Your task to perform on an android device: Look up the best rated headphones on Amazon. Image 0: 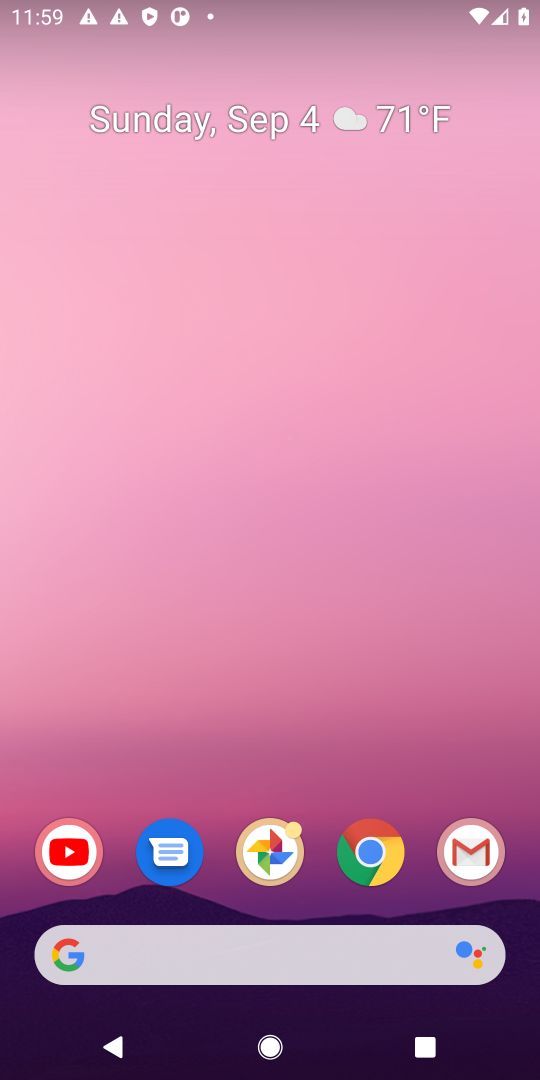
Step 0: click (375, 849)
Your task to perform on an android device: Look up the best rated headphones on Amazon. Image 1: 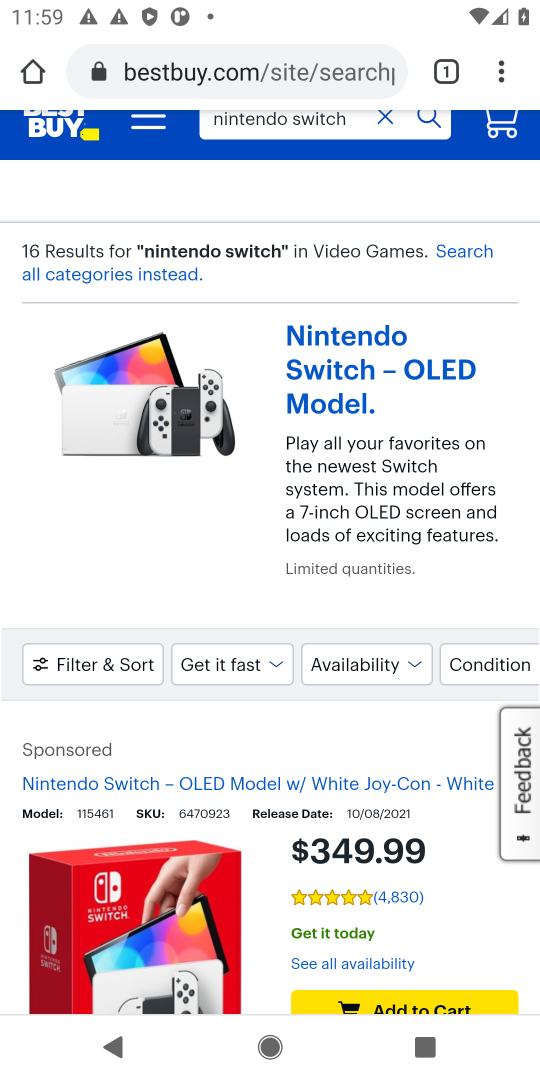
Step 1: click (270, 48)
Your task to perform on an android device: Look up the best rated headphones on Amazon. Image 2: 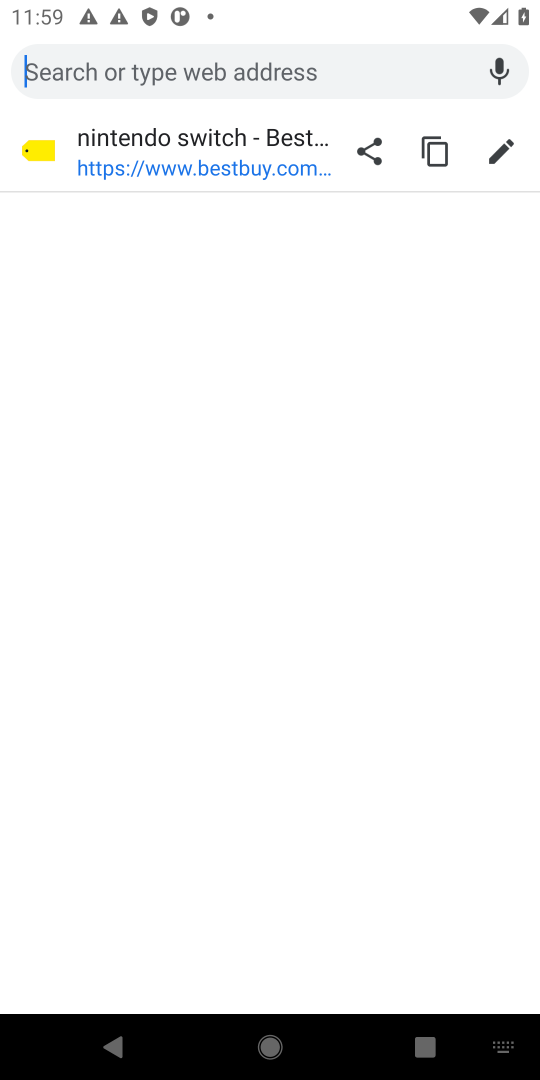
Step 2: type "Amazon"
Your task to perform on an android device: Look up the best rated headphones on Amazon. Image 3: 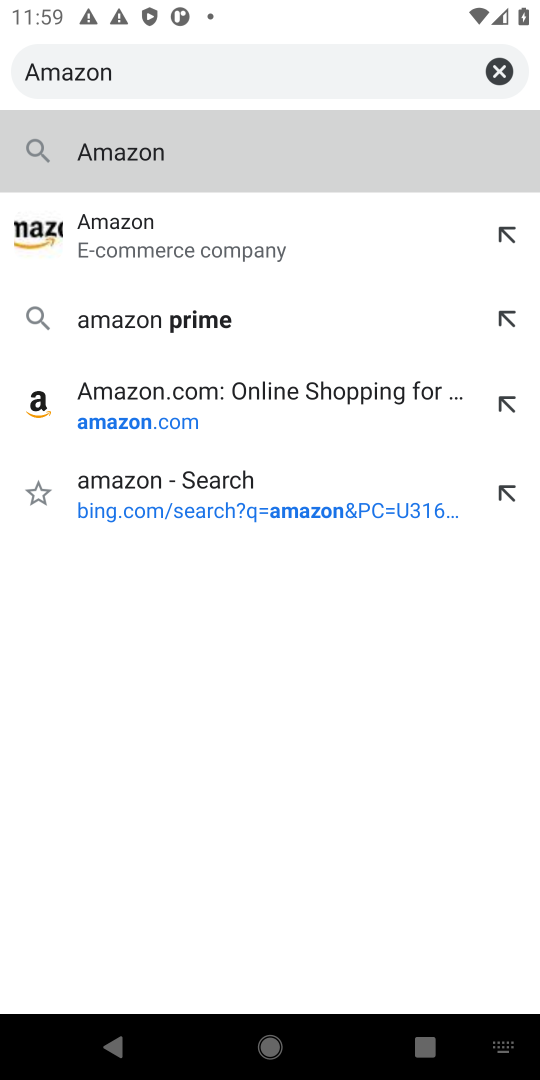
Step 3: click (147, 224)
Your task to perform on an android device: Look up the best rated headphones on Amazon. Image 4: 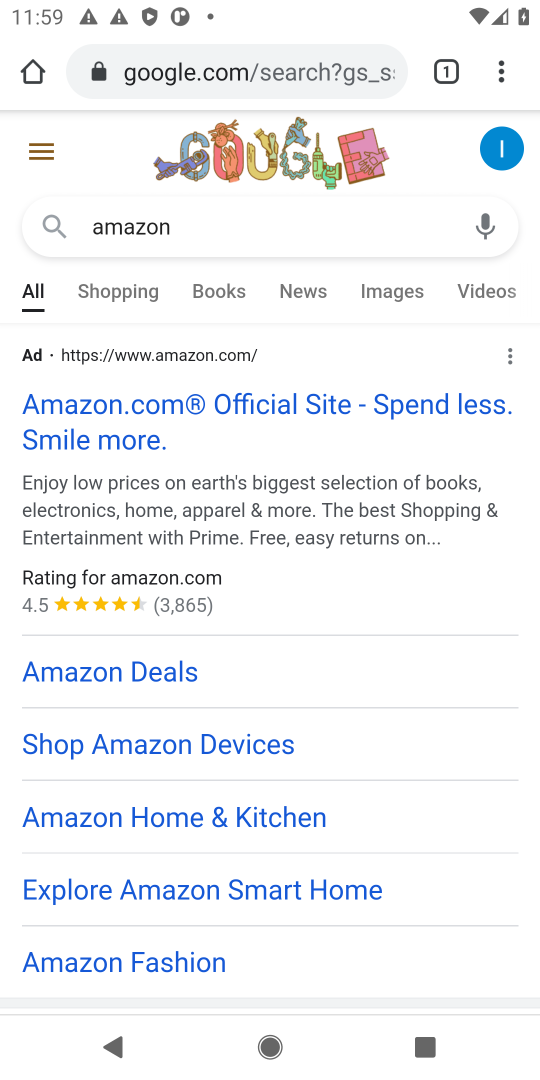
Step 4: click (65, 411)
Your task to perform on an android device: Look up the best rated headphones on Amazon. Image 5: 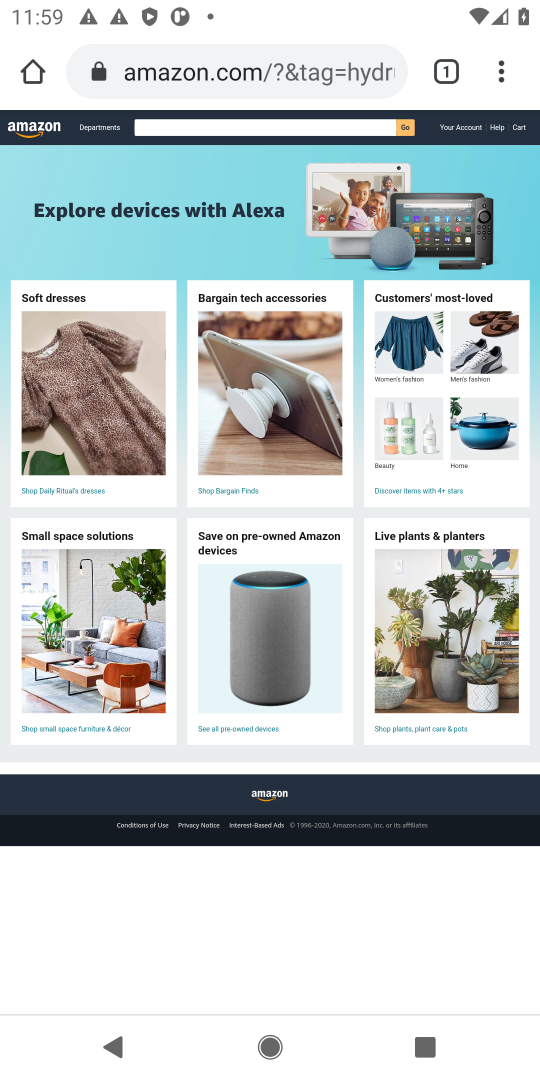
Step 5: click (179, 127)
Your task to perform on an android device: Look up the best rated headphones on Amazon. Image 6: 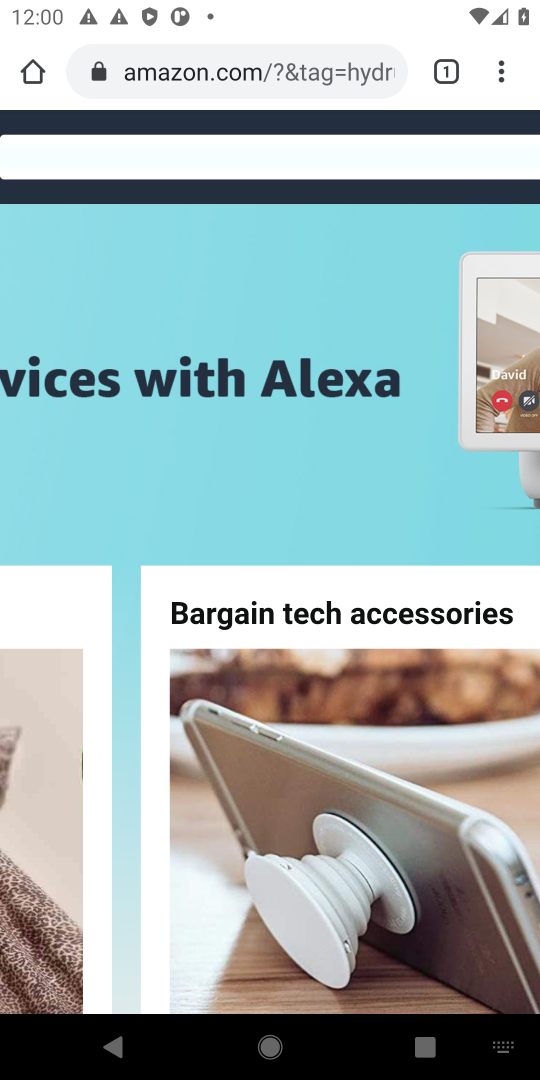
Step 6: type "headphones"
Your task to perform on an android device: Look up the best rated headphones on Amazon. Image 7: 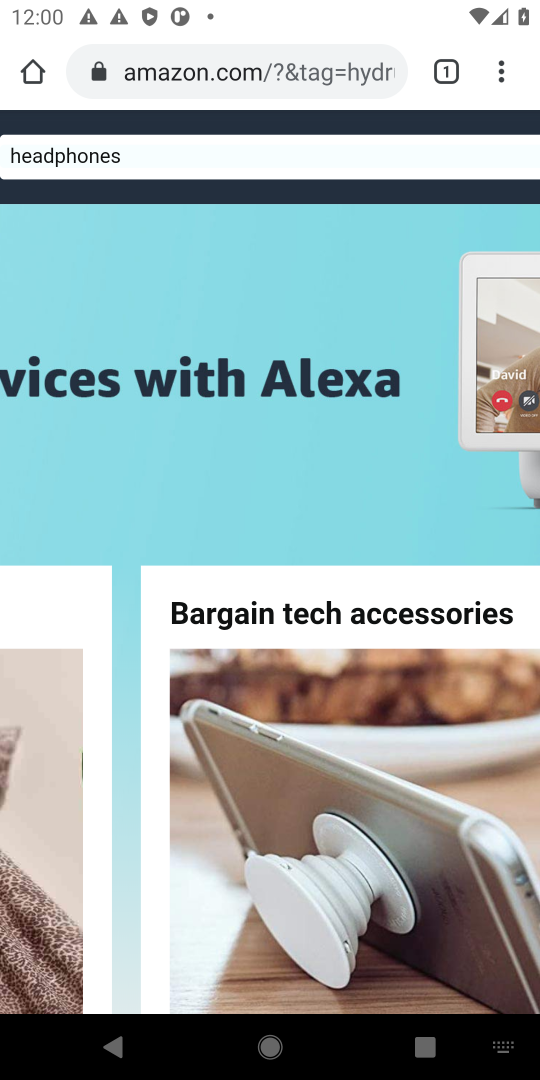
Step 7: drag from (248, 190) to (131, 201)
Your task to perform on an android device: Look up the best rated headphones on Amazon. Image 8: 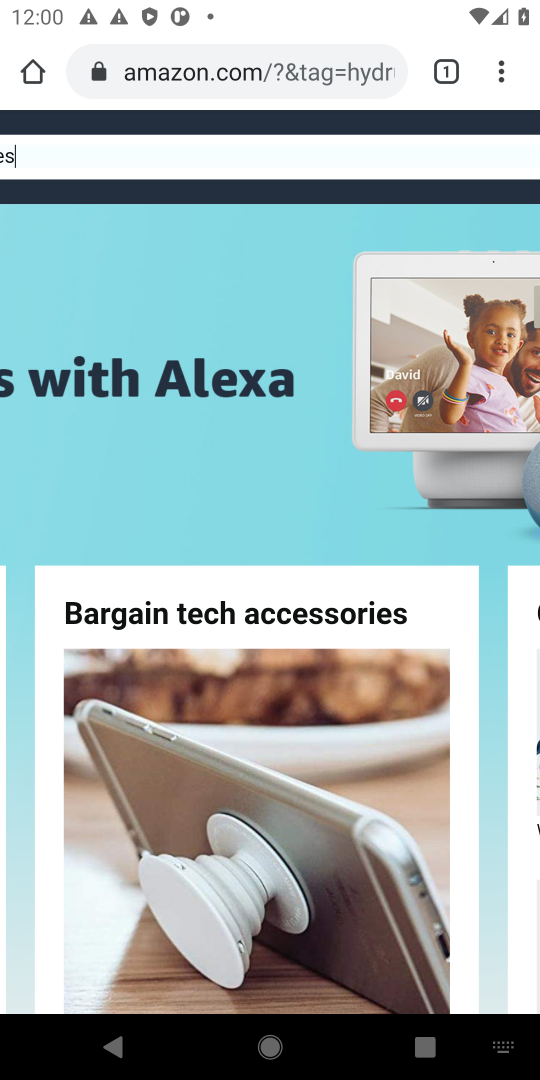
Step 8: drag from (379, 172) to (227, 172)
Your task to perform on an android device: Look up the best rated headphones on Amazon. Image 9: 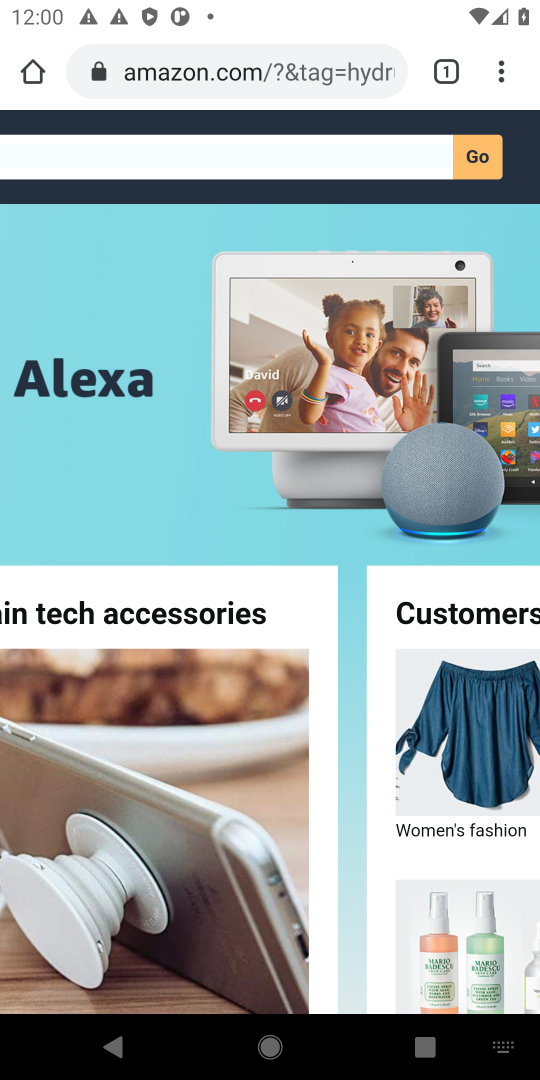
Step 9: click (474, 156)
Your task to perform on an android device: Look up the best rated headphones on Amazon. Image 10: 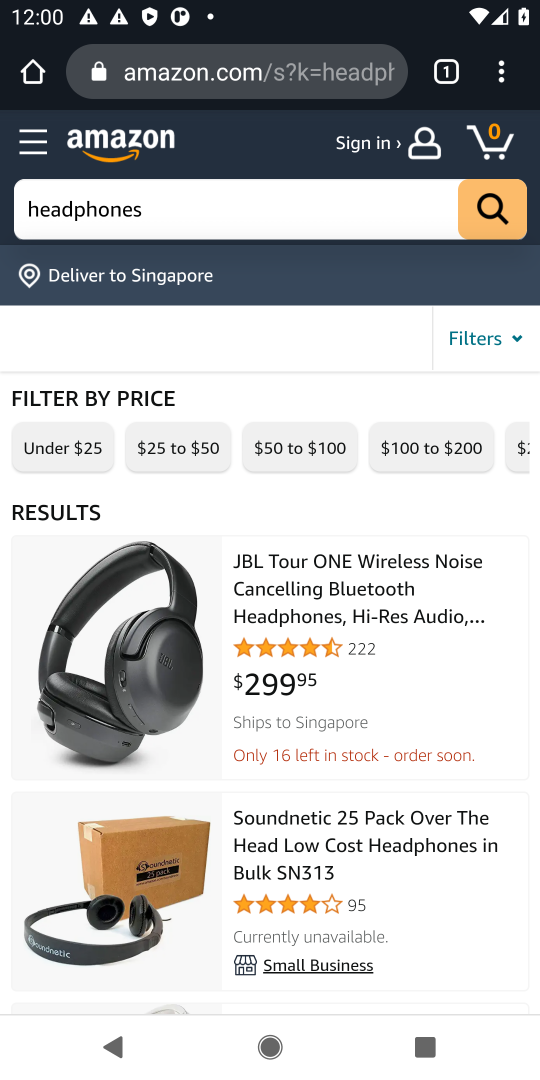
Step 10: click (511, 335)
Your task to perform on an android device: Look up the best rated headphones on Amazon. Image 11: 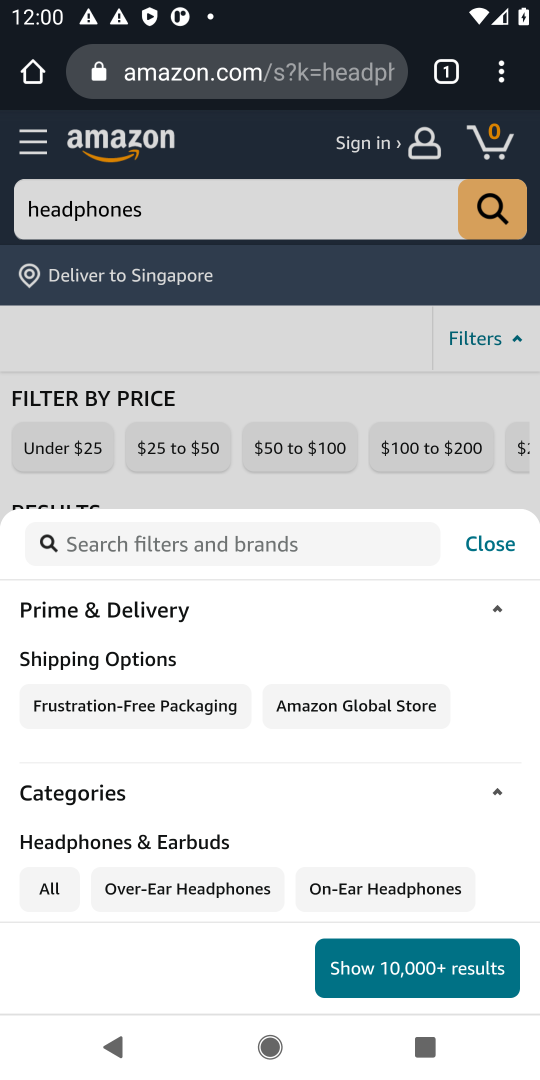
Step 11: click (98, 536)
Your task to perform on an android device: Look up the best rated headphones on Amazon. Image 12: 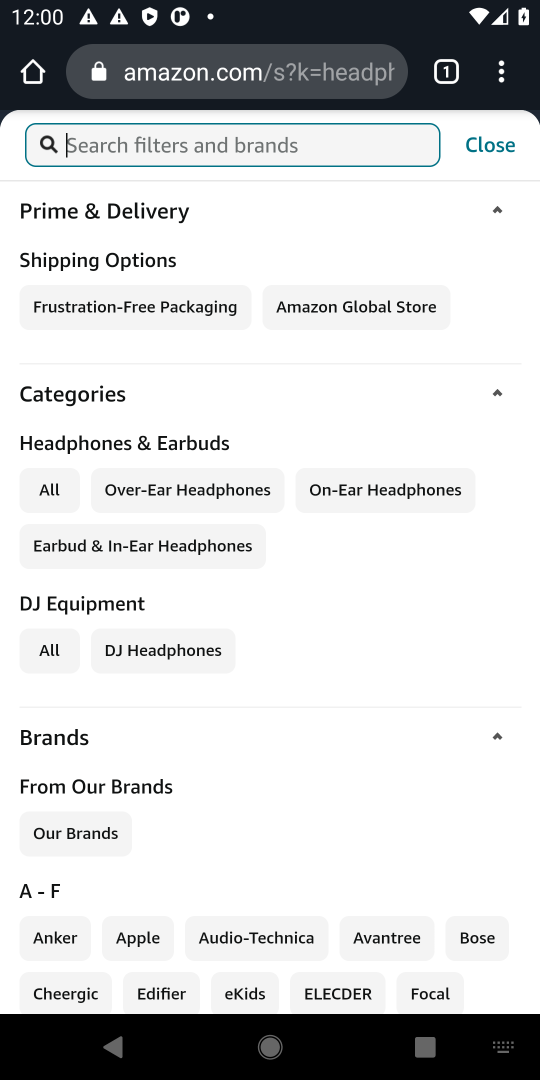
Step 12: type "best rated"
Your task to perform on an android device: Look up the best rated headphones on Amazon. Image 13: 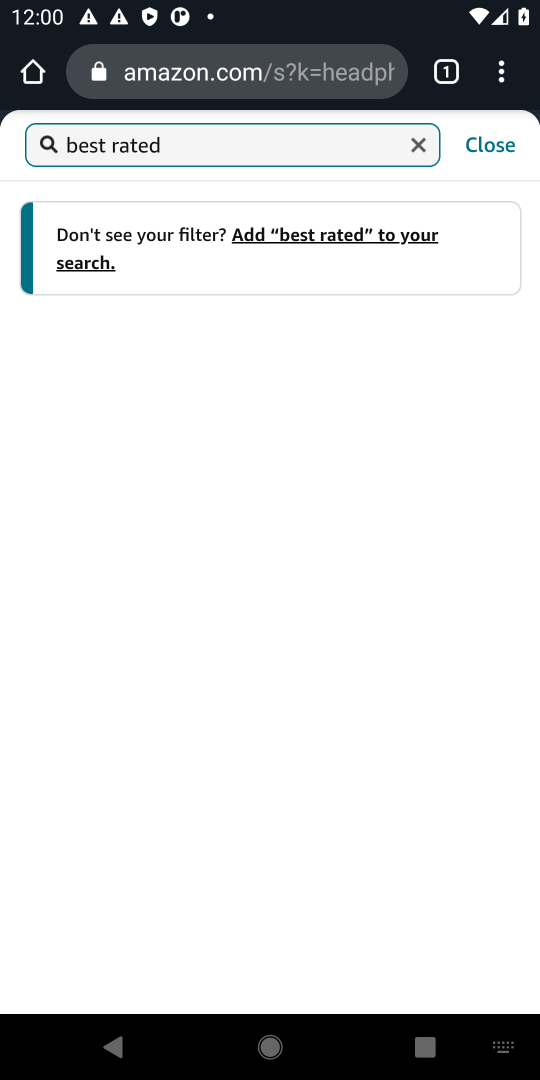
Step 13: click (417, 144)
Your task to perform on an android device: Look up the best rated headphones on Amazon. Image 14: 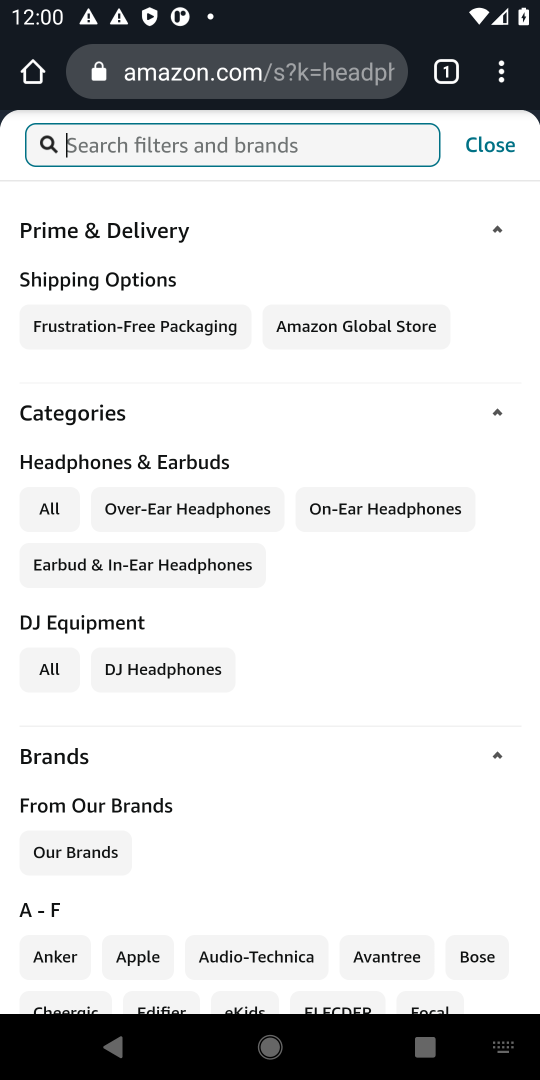
Step 14: drag from (275, 576) to (273, 264)
Your task to perform on an android device: Look up the best rated headphones on Amazon. Image 15: 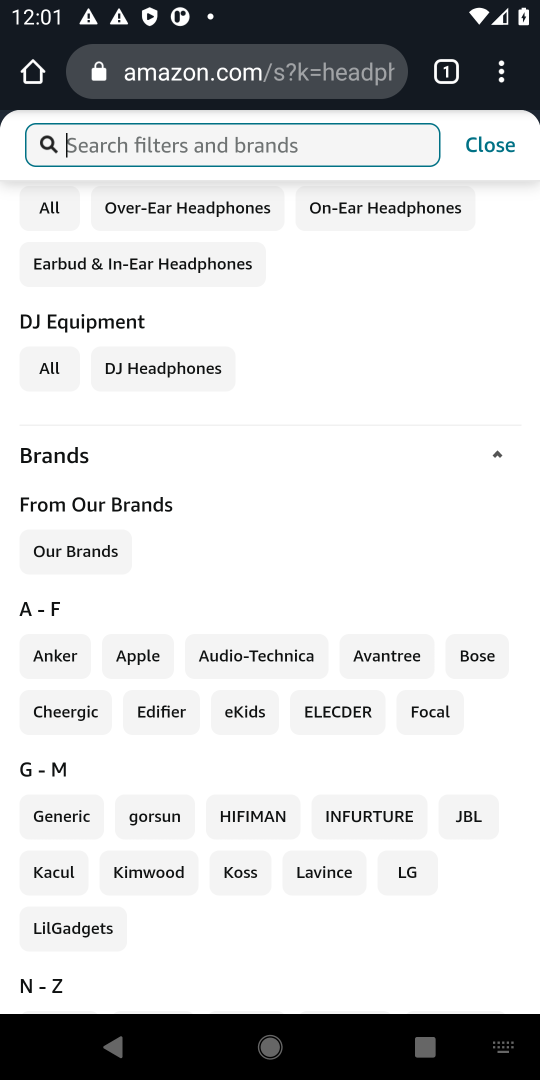
Step 15: drag from (294, 433) to (269, 741)
Your task to perform on an android device: Look up the best rated headphones on Amazon. Image 16: 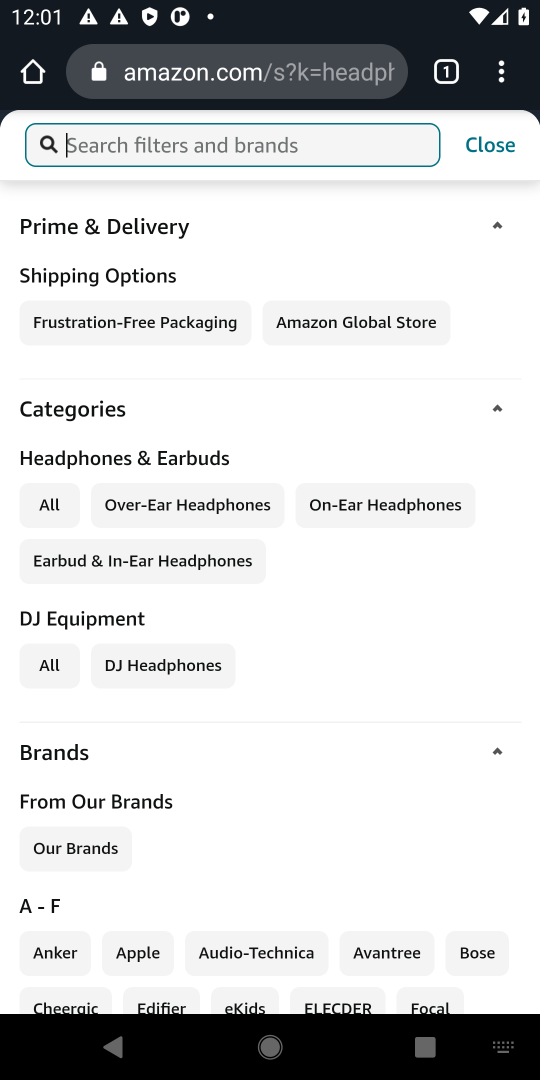
Step 16: click (476, 135)
Your task to perform on an android device: Look up the best rated headphones on Amazon. Image 17: 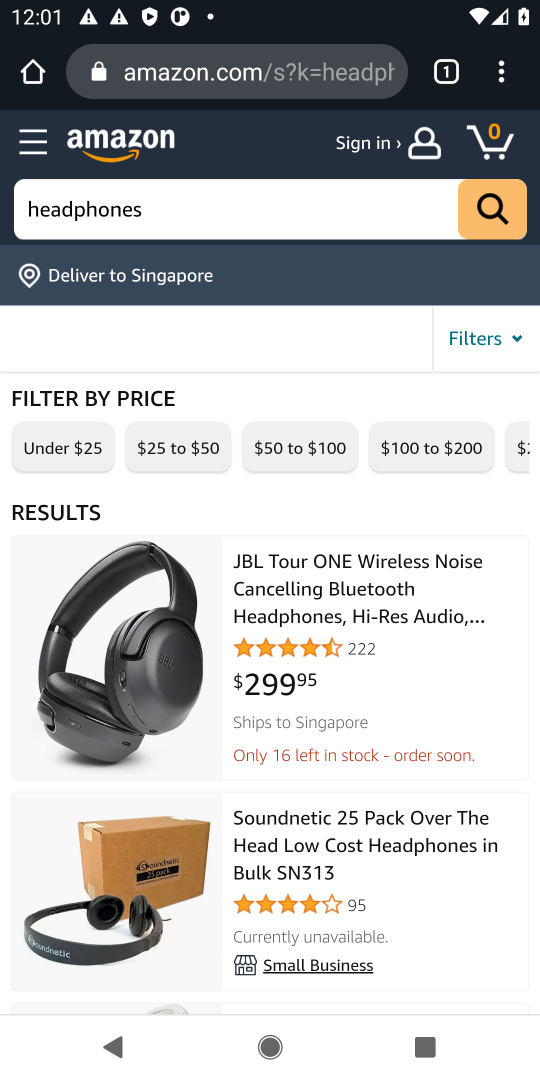
Step 17: drag from (221, 774) to (233, 416)
Your task to perform on an android device: Look up the best rated headphones on Amazon. Image 18: 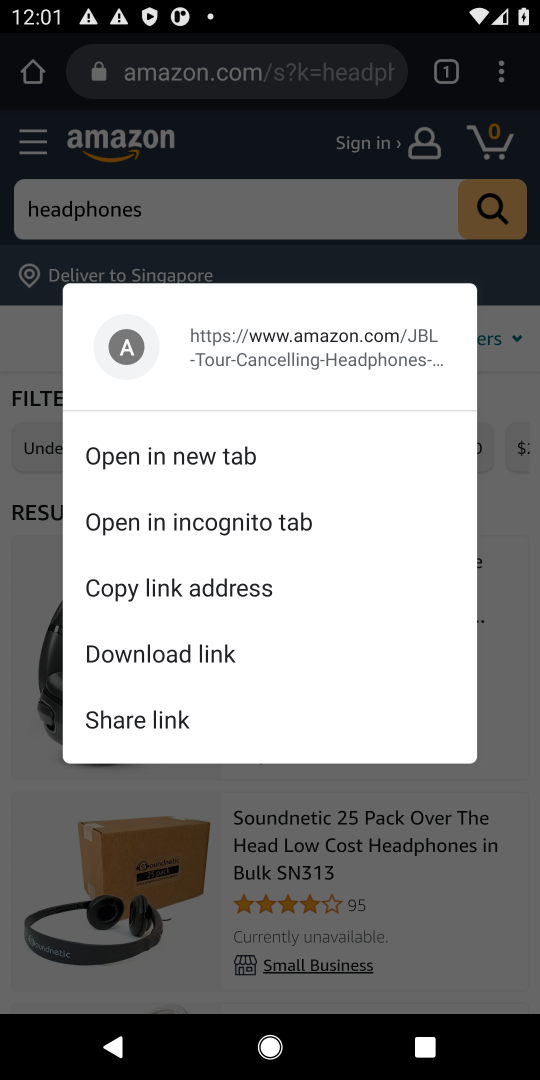
Step 18: click (207, 900)
Your task to perform on an android device: Look up the best rated headphones on Amazon. Image 19: 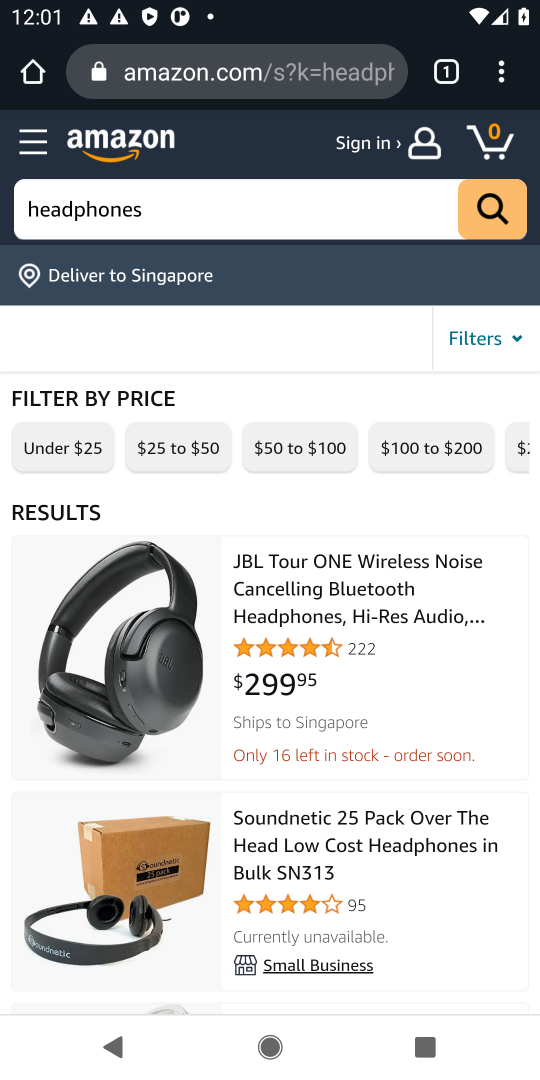
Step 19: task complete